Your task to perform on an android device: toggle notification dots Image 0: 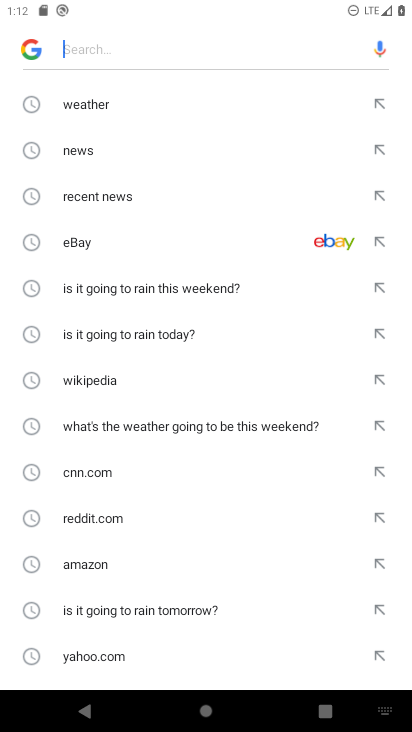
Step 0: press home button
Your task to perform on an android device: toggle notification dots Image 1: 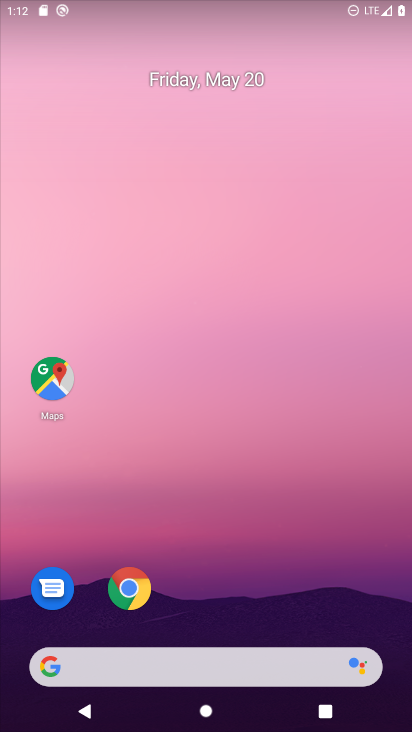
Step 1: drag from (371, 635) to (252, 9)
Your task to perform on an android device: toggle notification dots Image 2: 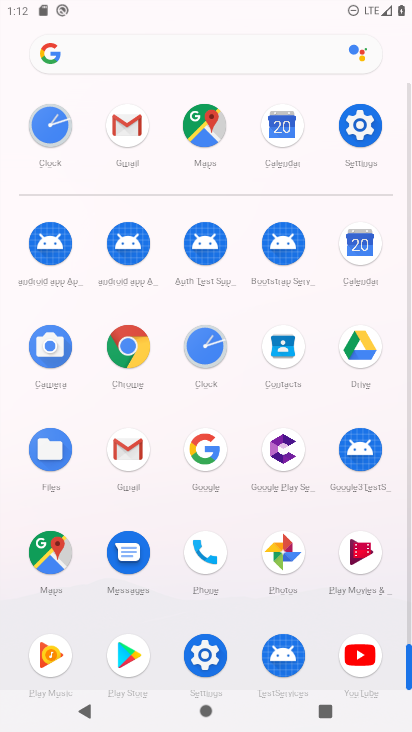
Step 2: click (205, 654)
Your task to perform on an android device: toggle notification dots Image 3: 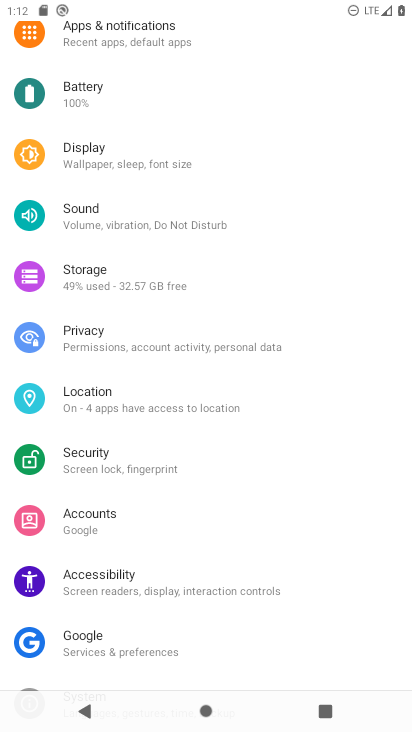
Step 3: drag from (304, 96) to (286, 312)
Your task to perform on an android device: toggle notification dots Image 4: 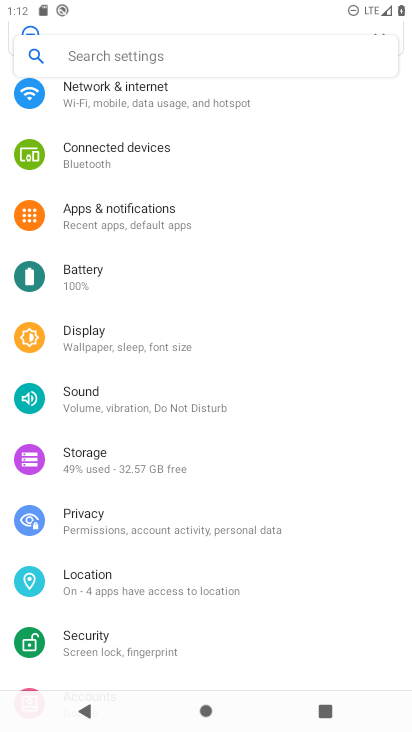
Step 4: click (100, 204)
Your task to perform on an android device: toggle notification dots Image 5: 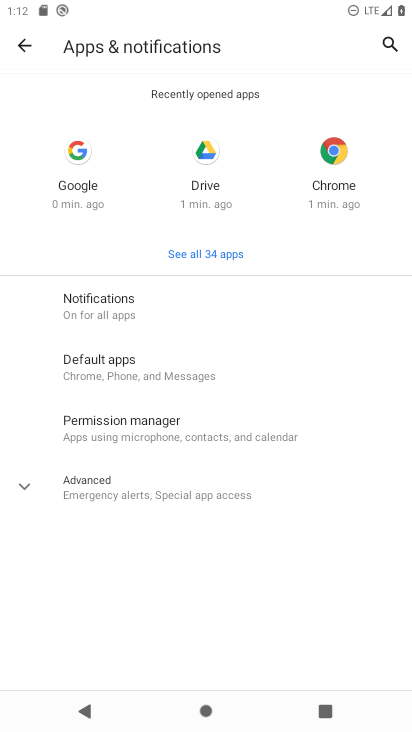
Step 5: click (42, 493)
Your task to perform on an android device: toggle notification dots Image 6: 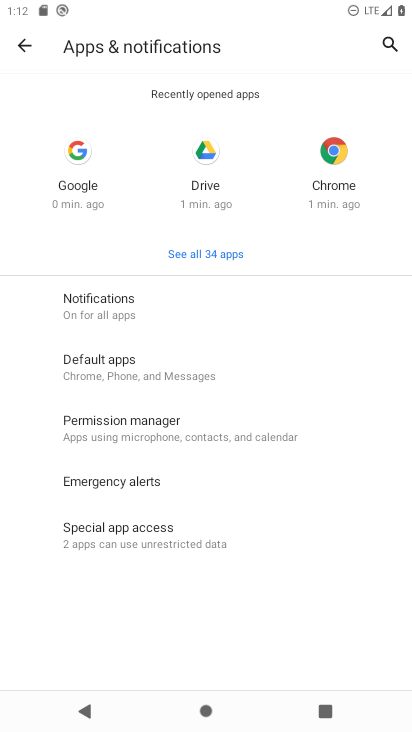
Step 6: click (87, 291)
Your task to perform on an android device: toggle notification dots Image 7: 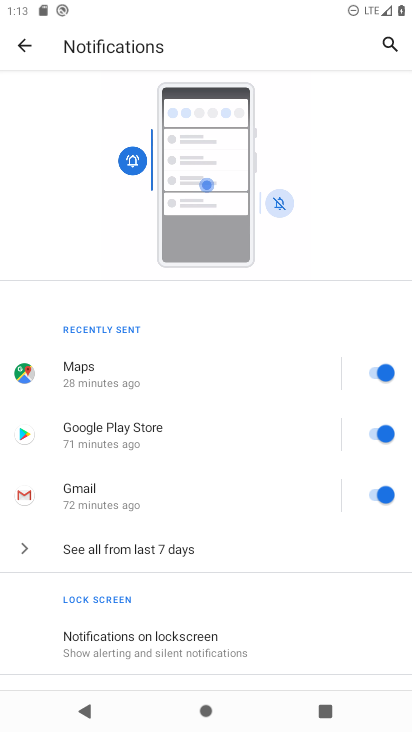
Step 7: drag from (132, 624) to (175, 239)
Your task to perform on an android device: toggle notification dots Image 8: 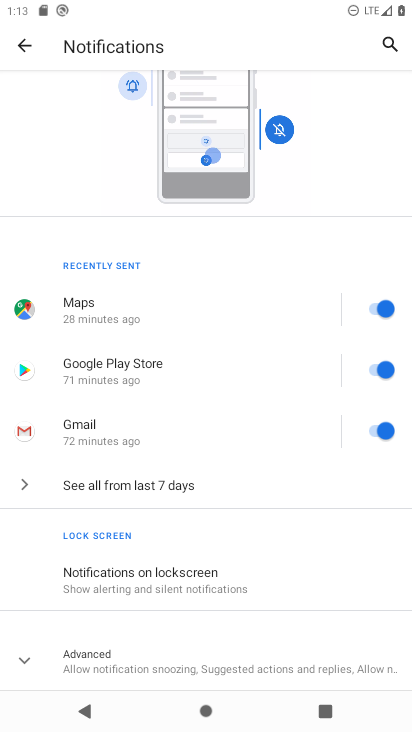
Step 8: click (32, 662)
Your task to perform on an android device: toggle notification dots Image 9: 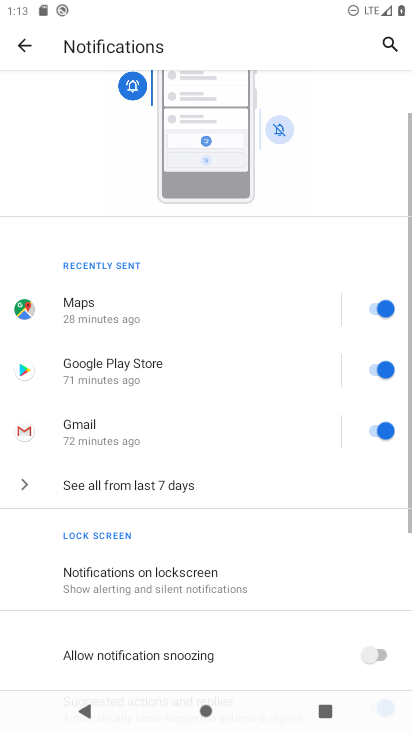
Step 9: drag from (237, 642) to (218, 205)
Your task to perform on an android device: toggle notification dots Image 10: 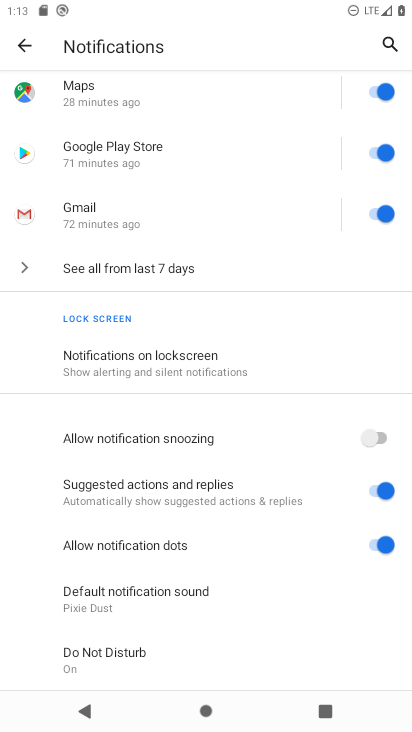
Step 10: click (370, 542)
Your task to perform on an android device: toggle notification dots Image 11: 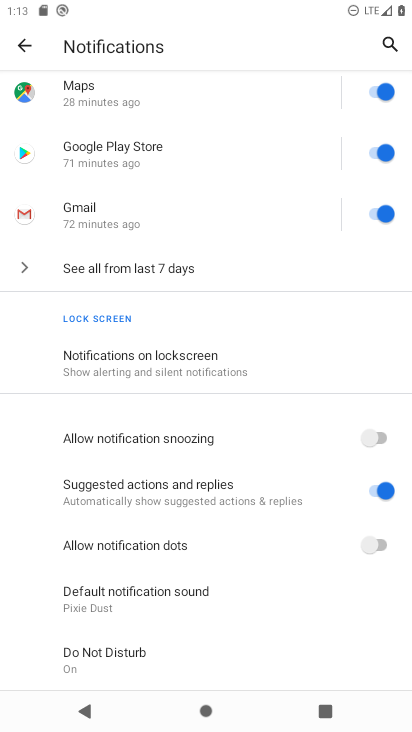
Step 11: task complete